Your task to perform on an android device: clear history in the chrome app Image 0: 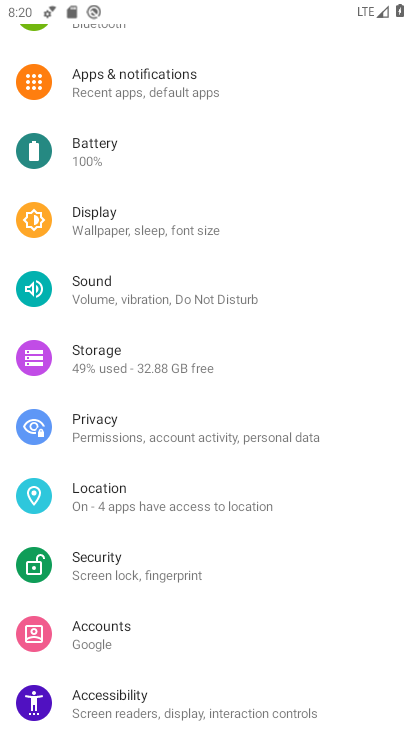
Step 0: press home button
Your task to perform on an android device: clear history in the chrome app Image 1: 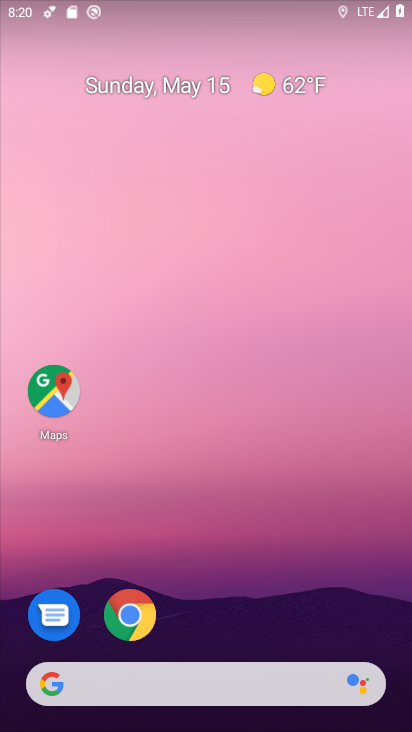
Step 1: click (132, 622)
Your task to perform on an android device: clear history in the chrome app Image 2: 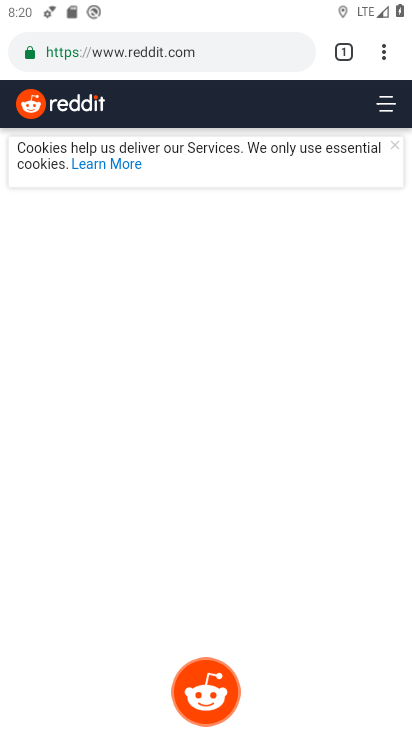
Step 2: click (387, 44)
Your task to perform on an android device: clear history in the chrome app Image 3: 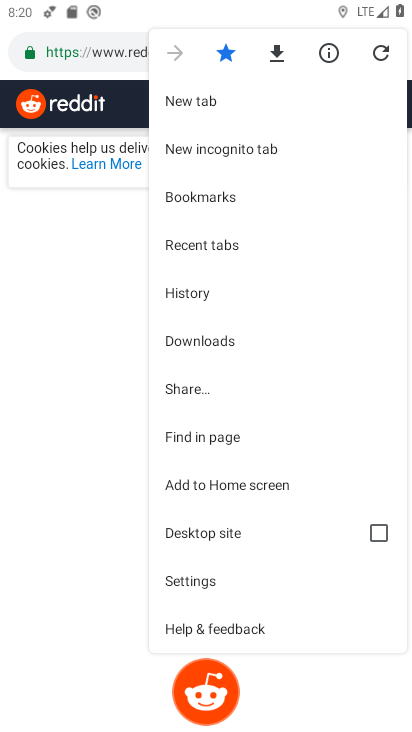
Step 3: click (196, 295)
Your task to perform on an android device: clear history in the chrome app Image 4: 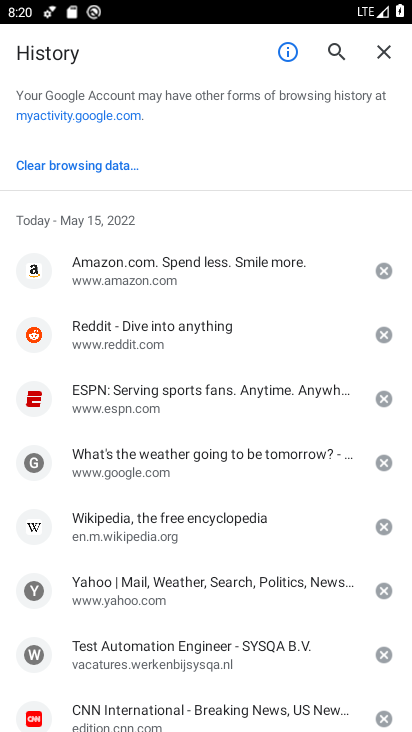
Step 4: click (93, 168)
Your task to perform on an android device: clear history in the chrome app Image 5: 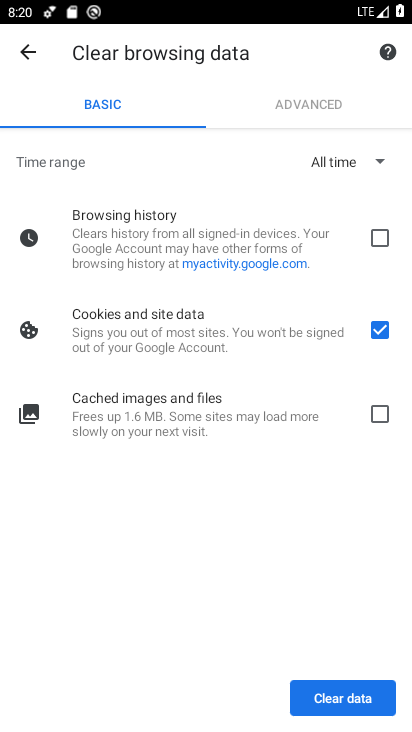
Step 5: click (319, 686)
Your task to perform on an android device: clear history in the chrome app Image 6: 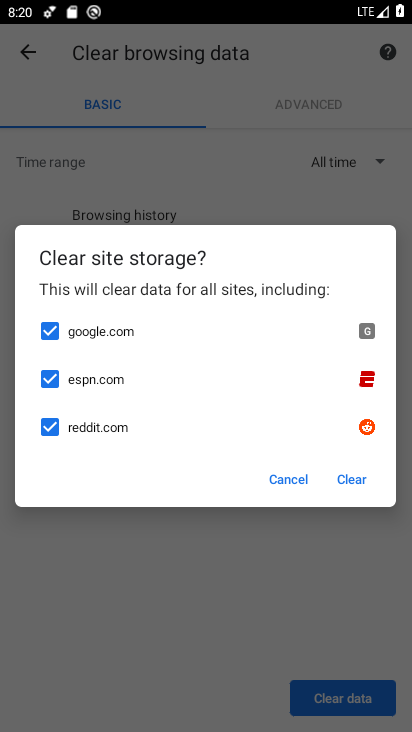
Step 6: click (340, 488)
Your task to perform on an android device: clear history in the chrome app Image 7: 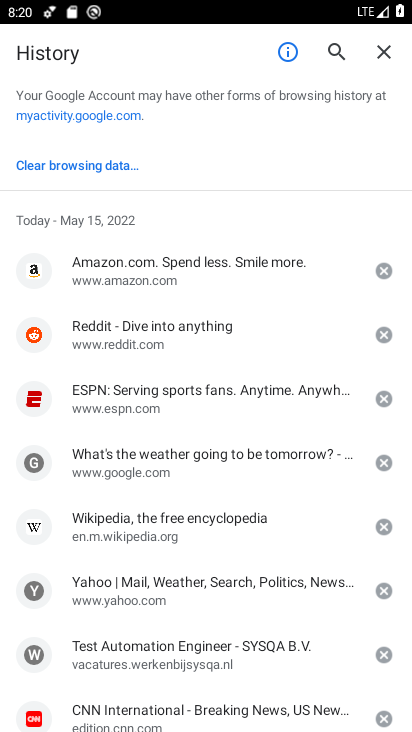
Step 7: click (99, 175)
Your task to perform on an android device: clear history in the chrome app Image 8: 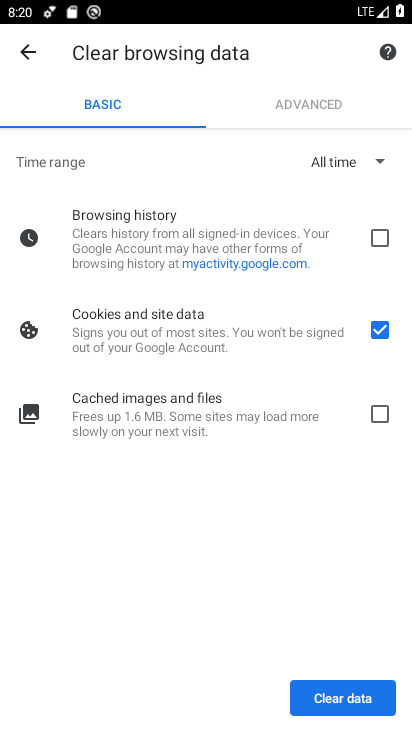
Step 8: click (333, 693)
Your task to perform on an android device: clear history in the chrome app Image 9: 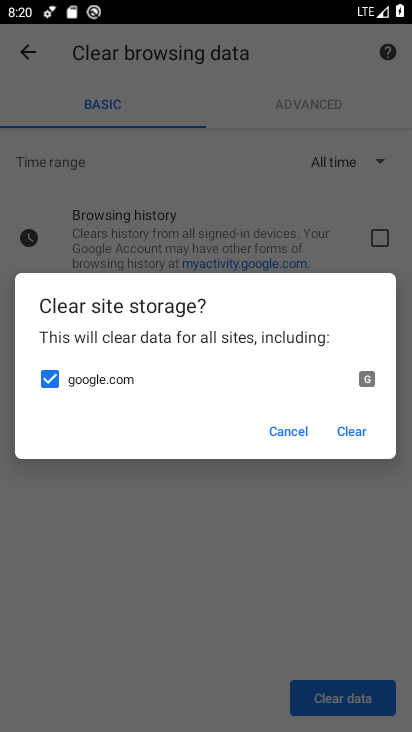
Step 9: click (346, 428)
Your task to perform on an android device: clear history in the chrome app Image 10: 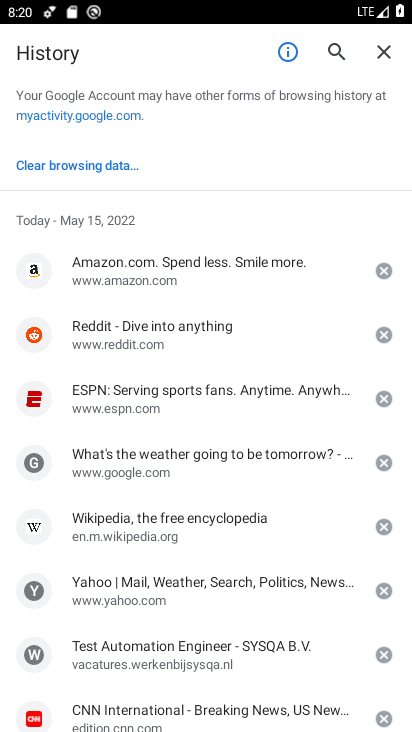
Step 10: task complete